Your task to perform on an android device: Open Google Maps Image 0: 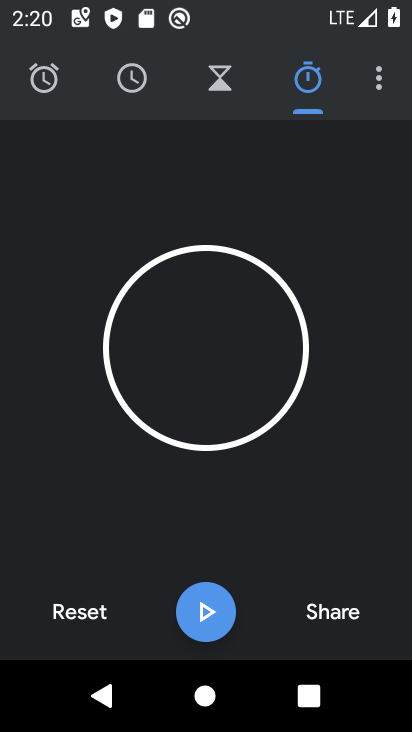
Step 0: press home button
Your task to perform on an android device: Open Google Maps Image 1: 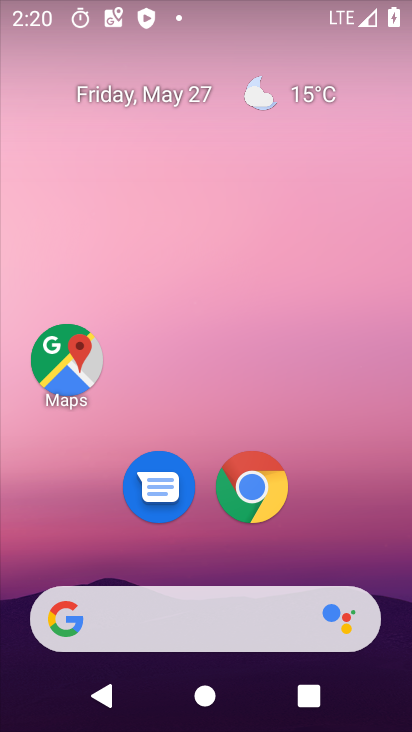
Step 1: click (65, 365)
Your task to perform on an android device: Open Google Maps Image 2: 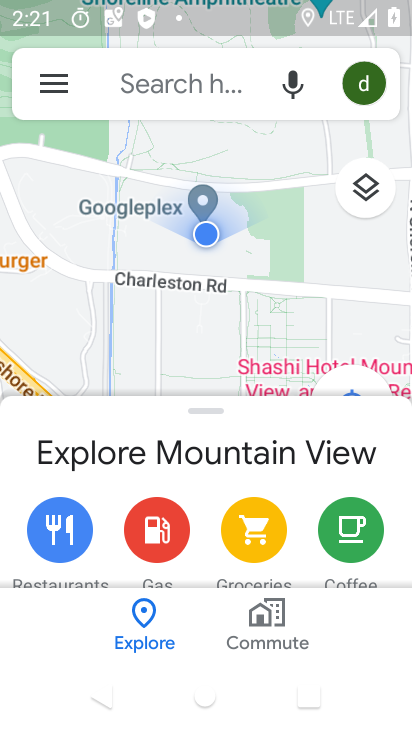
Step 2: task complete